Your task to perform on an android device: delete a single message in the gmail app Image 0: 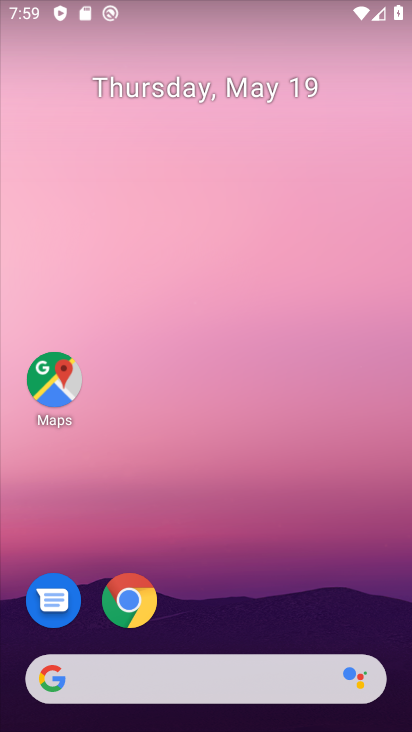
Step 0: drag from (290, 608) to (285, 160)
Your task to perform on an android device: delete a single message in the gmail app Image 1: 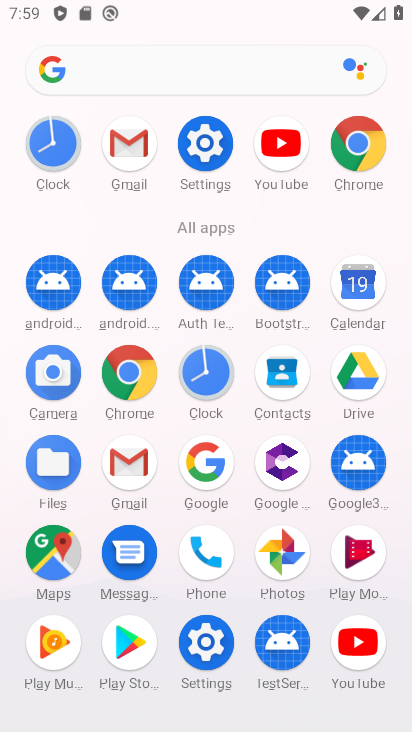
Step 1: click (131, 474)
Your task to perform on an android device: delete a single message in the gmail app Image 2: 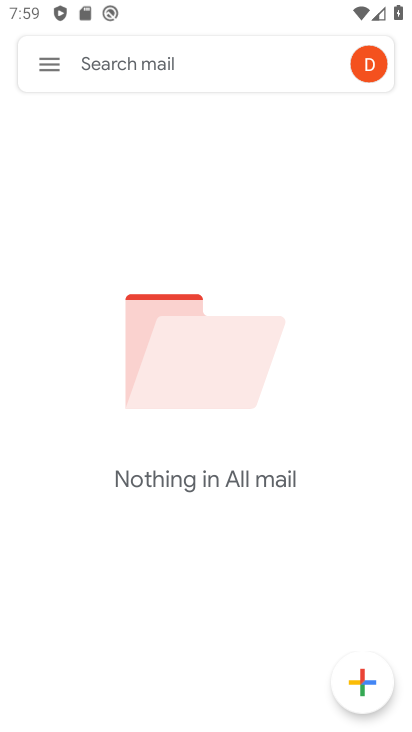
Step 2: click (52, 76)
Your task to perform on an android device: delete a single message in the gmail app Image 3: 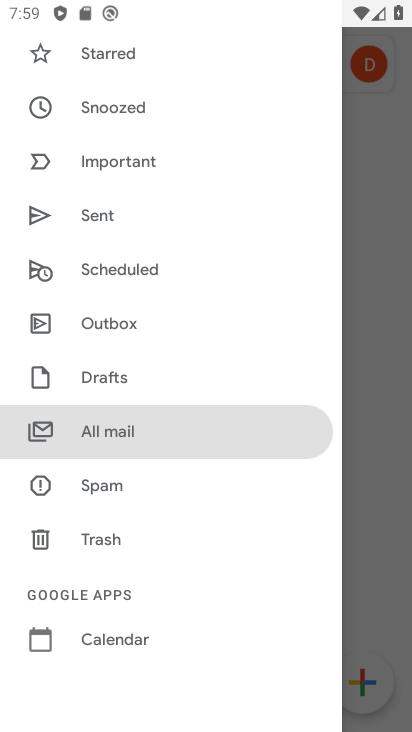
Step 3: click (116, 441)
Your task to perform on an android device: delete a single message in the gmail app Image 4: 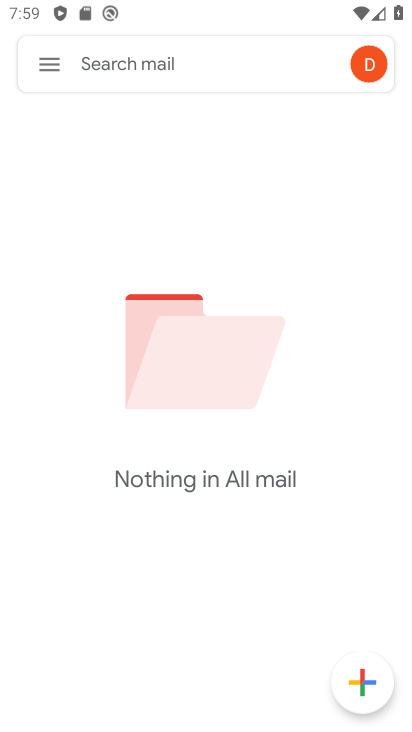
Step 4: task complete